Your task to perform on an android device: turn off airplane mode Image 0: 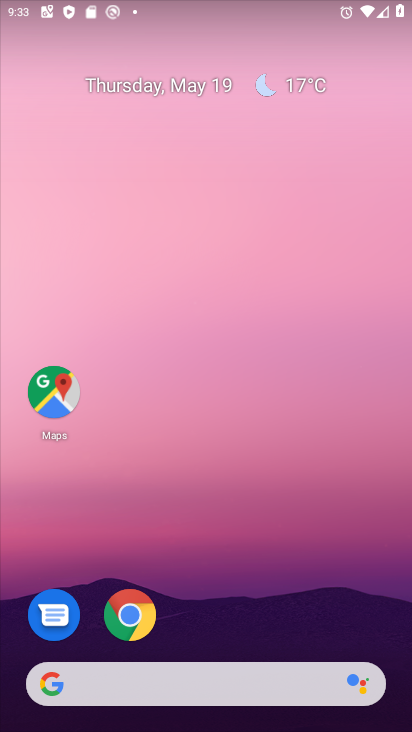
Step 0: drag from (293, 4) to (177, 665)
Your task to perform on an android device: turn off airplane mode Image 1: 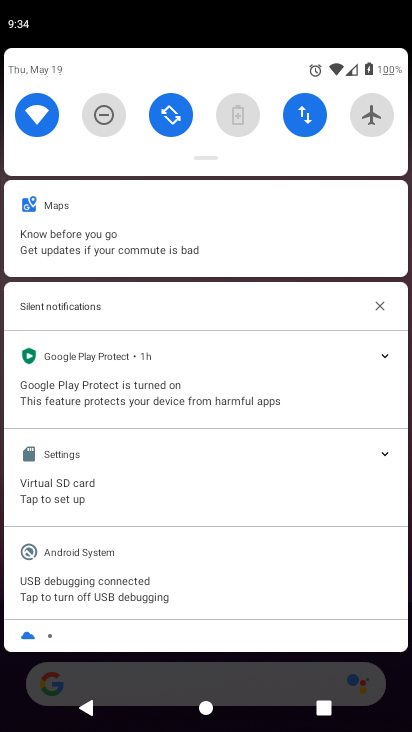
Step 1: task complete